Your task to perform on an android device: Open Yahoo.com Image 0: 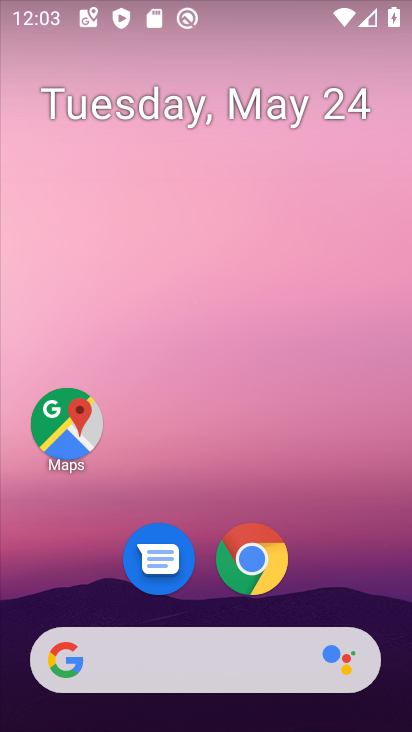
Step 0: drag from (265, 349) to (227, 196)
Your task to perform on an android device: Open Yahoo.com Image 1: 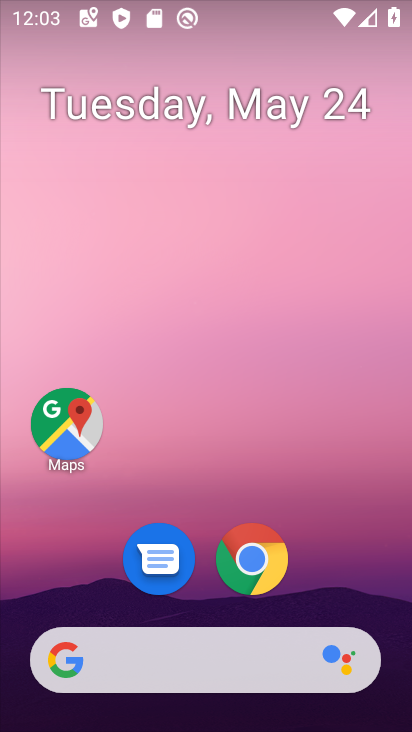
Step 1: drag from (313, 587) to (231, 50)
Your task to perform on an android device: Open Yahoo.com Image 2: 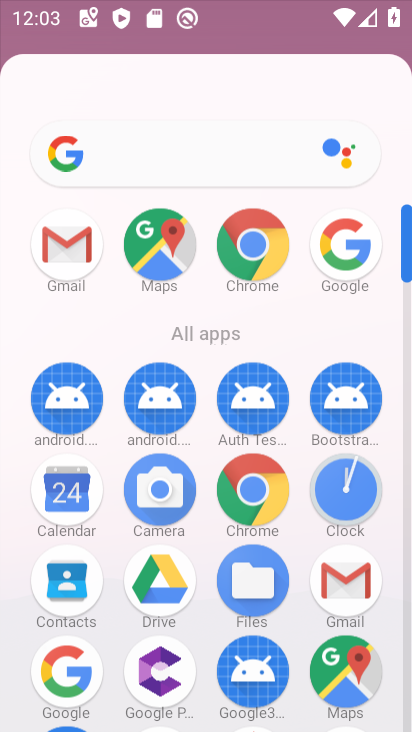
Step 2: drag from (285, 154) to (260, 15)
Your task to perform on an android device: Open Yahoo.com Image 3: 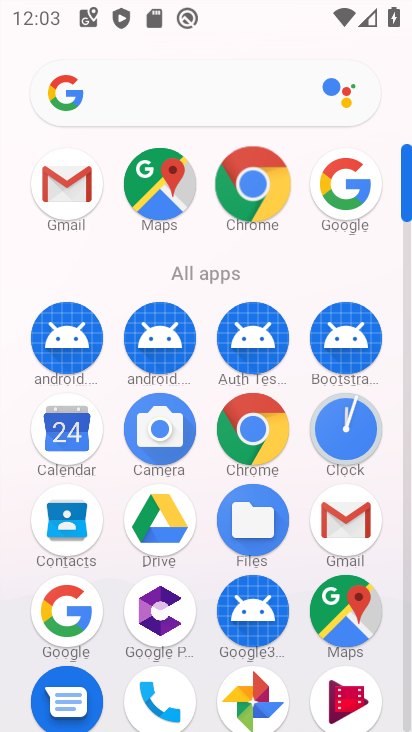
Step 3: click (222, 72)
Your task to perform on an android device: Open Yahoo.com Image 4: 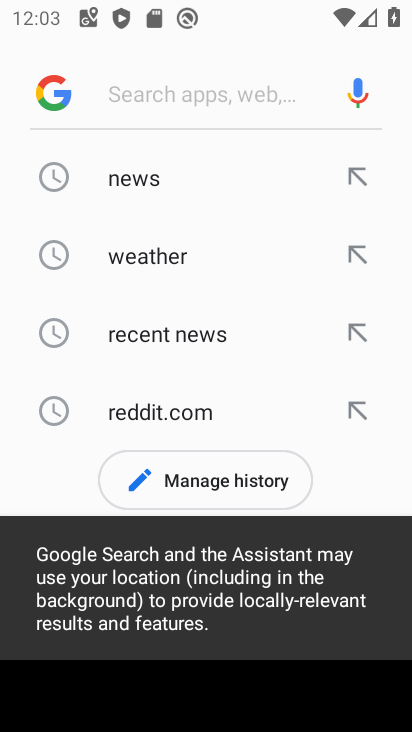
Step 4: press back button
Your task to perform on an android device: Open Yahoo.com Image 5: 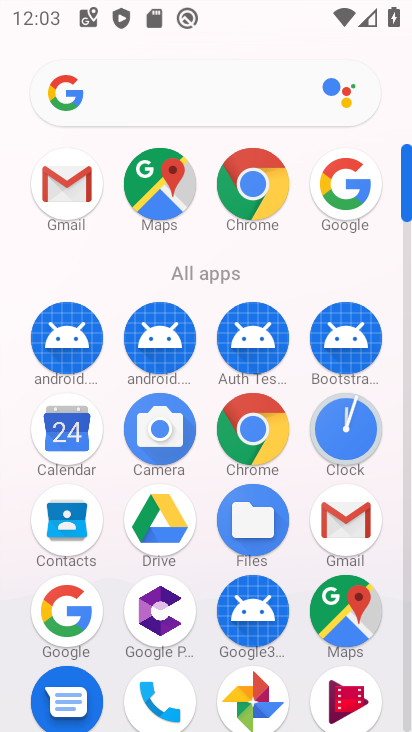
Step 5: click (258, 191)
Your task to perform on an android device: Open Yahoo.com Image 6: 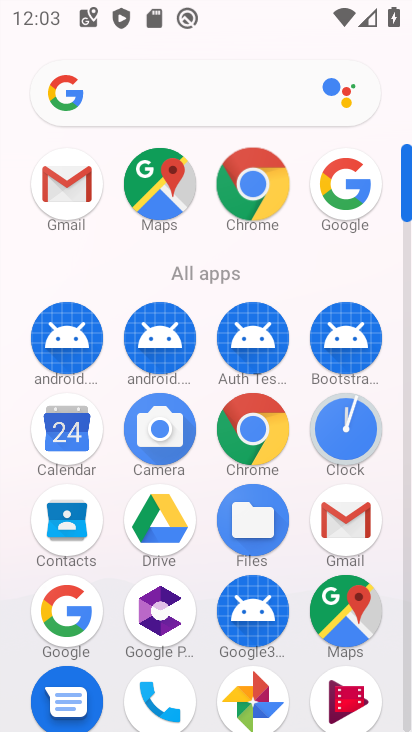
Step 6: click (258, 191)
Your task to perform on an android device: Open Yahoo.com Image 7: 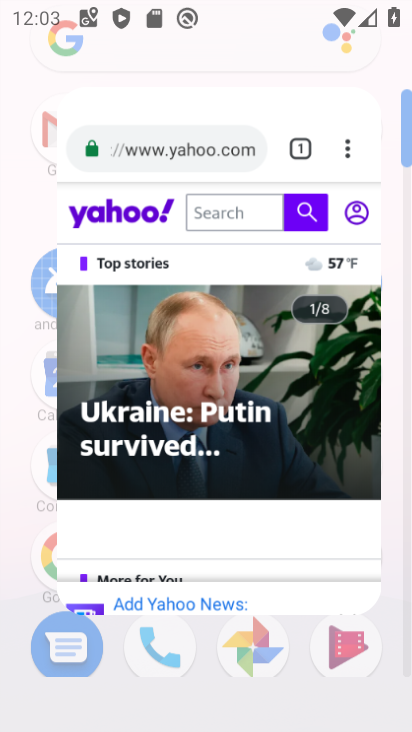
Step 7: click (257, 192)
Your task to perform on an android device: Open Yahoo.com Image 8: 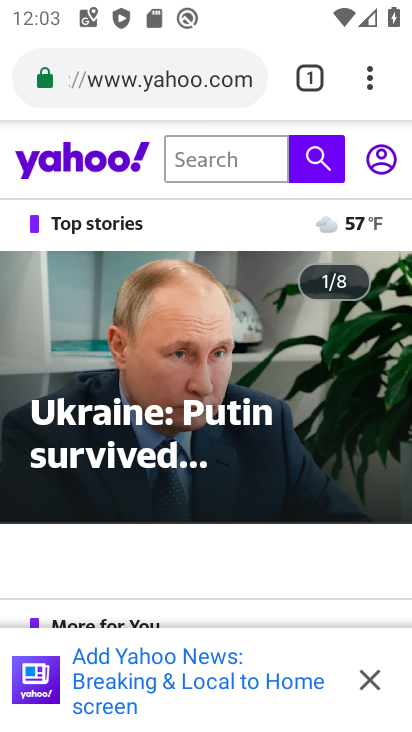
Step 8: task complete